Your task to perform on an android device: Show me popular videos on Youtube Image 0: 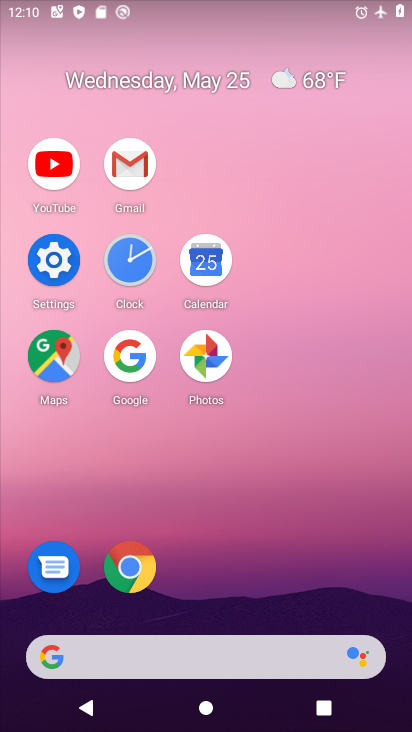
Step 0: click (60, 175)
Your task to perform on an android device: Show me popular videos on Youtube Image 1: 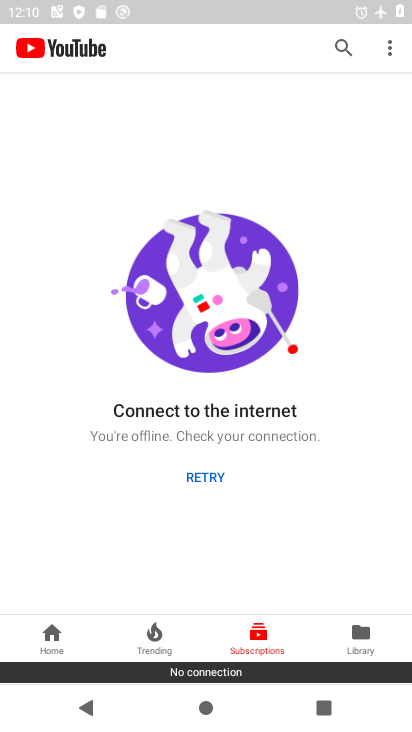
Step 1: task complete